Your task to perform on an android device: Open Google Maps Image 0: 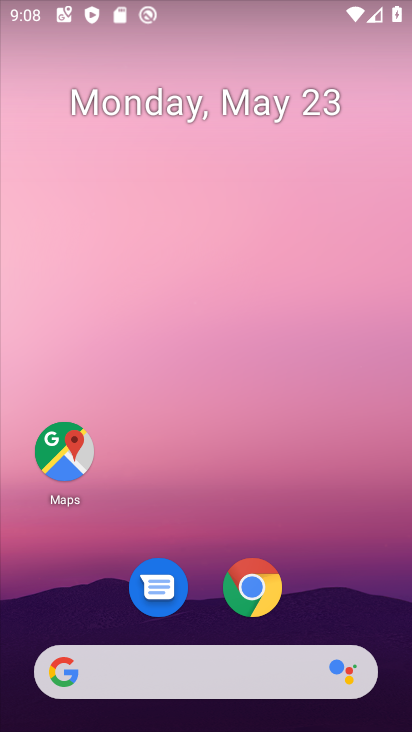
Step 0: click (60, 454)
Your task to perform on an android device: Open Google Maps Image 1: 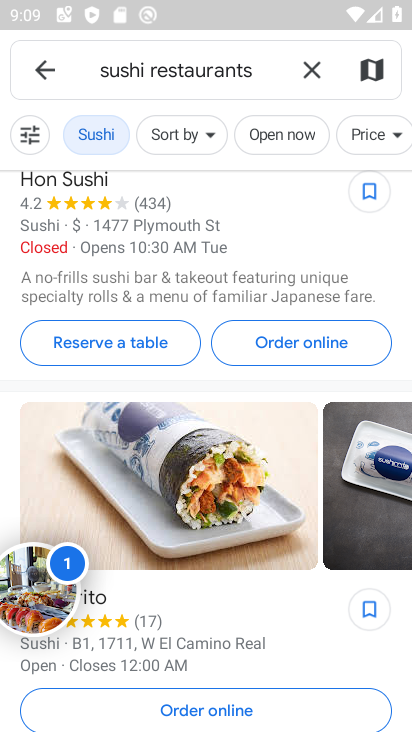
Step 1: task complete